Your task to perform on an android device: turn off javascript in the chrome app Image 0: 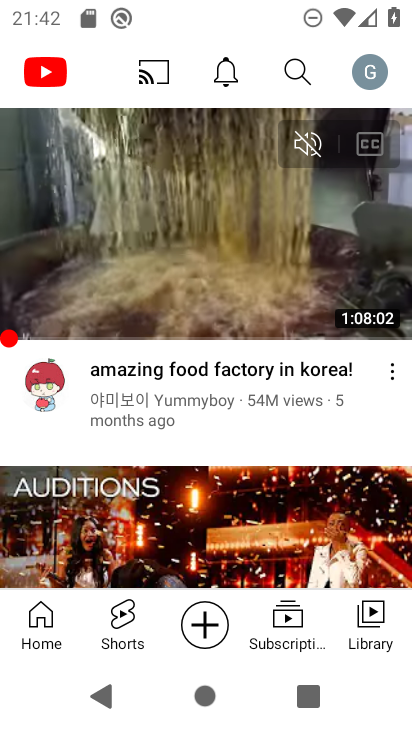
Step 0: press home button
Your task to perform on an android device: turn off javascript in the chrome app Image 1: 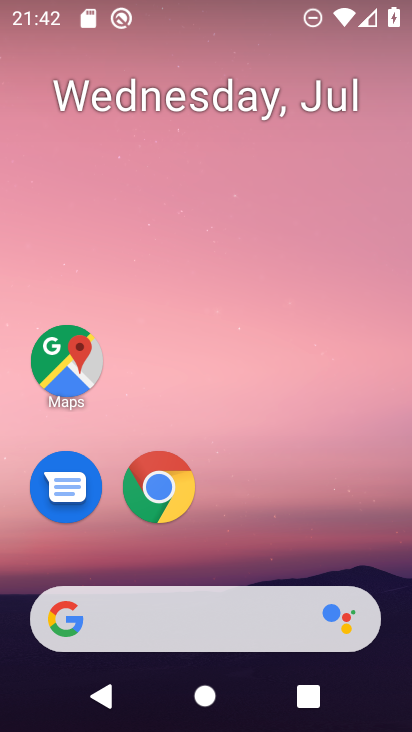
Step 1: drag from (325, 527) to (344, 82)
Your task to perform on an android device: turn off javascript in the chrome app Image 2: 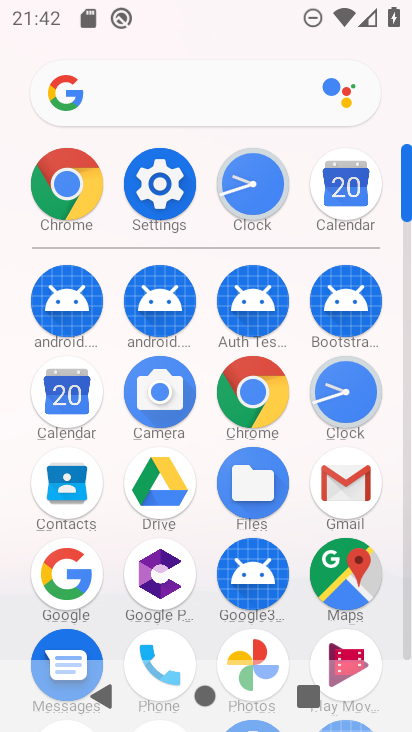
Step 2: click (262, 394)
Your task to perform on an android device: turn off javascript in the chrome app Image 3: 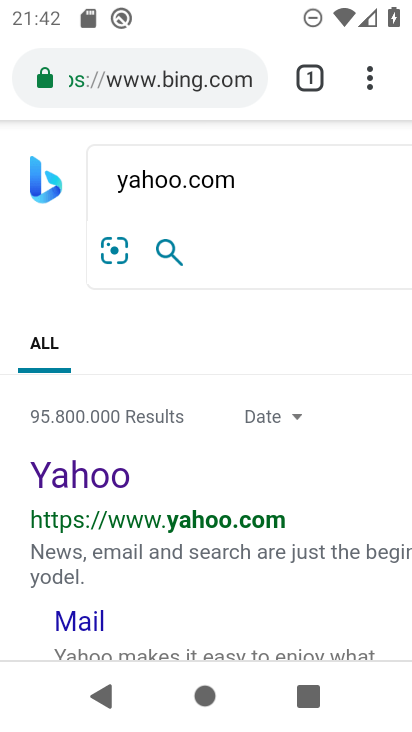
Step 3: click (369, 83)
Your task to perform on an android device: turn off javascript in the chrome app Image 4: 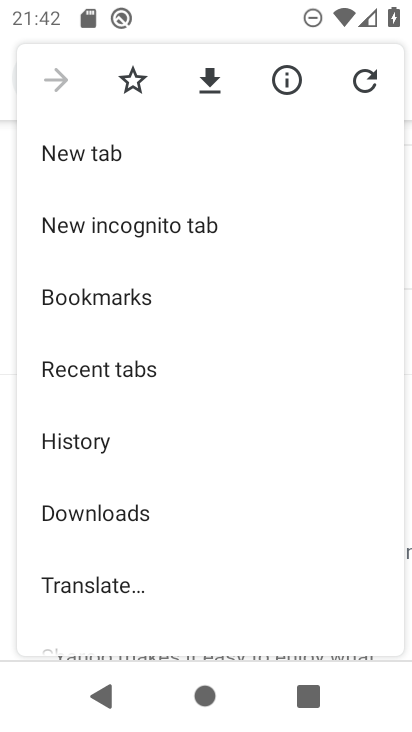
Step 4: drag from (284, 480) to (299, 364)
Your task to perform on an android device: turn off javascript in the chrome app Image 5: 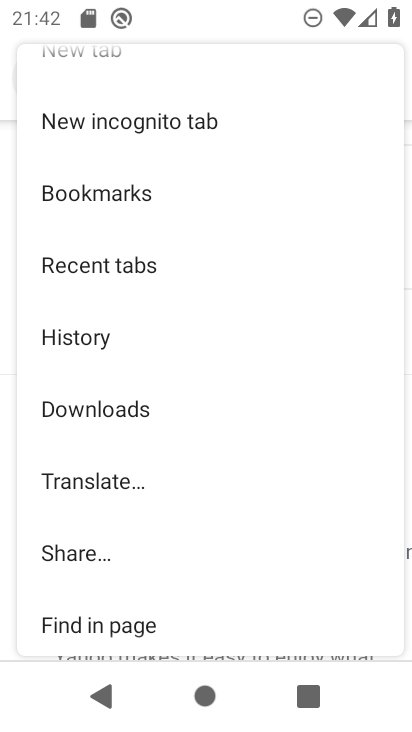
Step 5: drag from (270, 508) to (289, 347)
Your task to perform on an android device: turn off javascript in the chrome app Image 6: 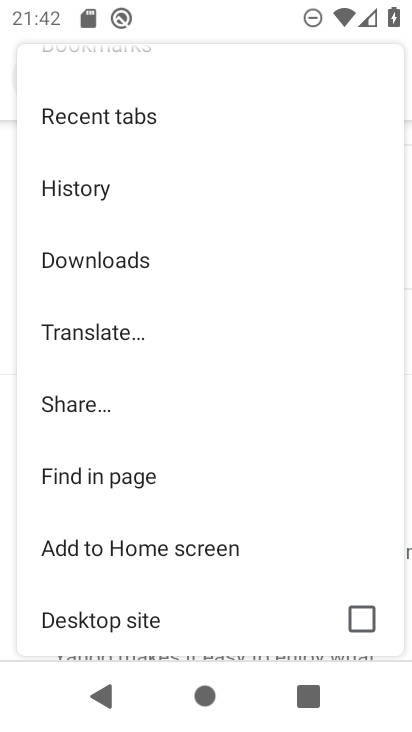
Step 6: drag from (292, 560) to (283, 372)
Your task to perform on an android device: turn off javascript in the chrome app Image 7: 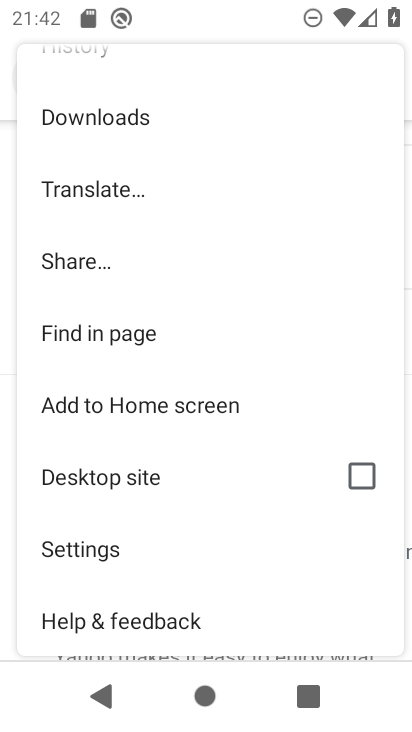
Step 7: click (176, 564)
Your task to perform on an android device: turn off javascript in the chrome app Image 8: 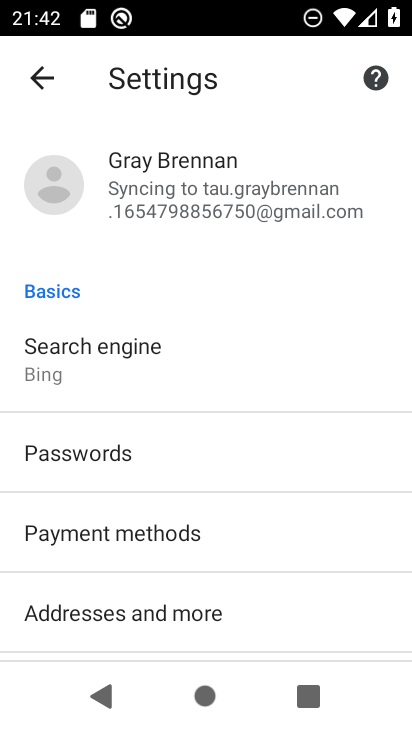
Step 8: drag from (291, 531) to (303, 390)
Your task to perform on an android device: turn off javascript in the chrome app Image 9: 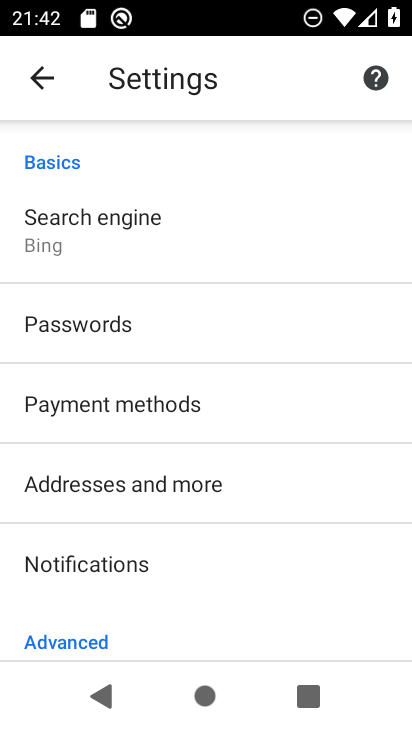
Step 9: drag from (303, 562) to (304, 433)
Your task to perform on an android device: turn off javascript in the chrome app Image 10: 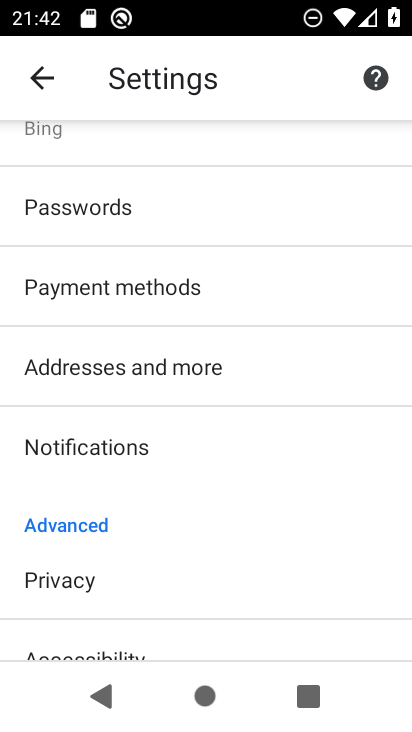
Step 10: drag from (299, 561) to (304, 423)
Your task to perform on an android device: turn off javascript in the chrome app Image 11: 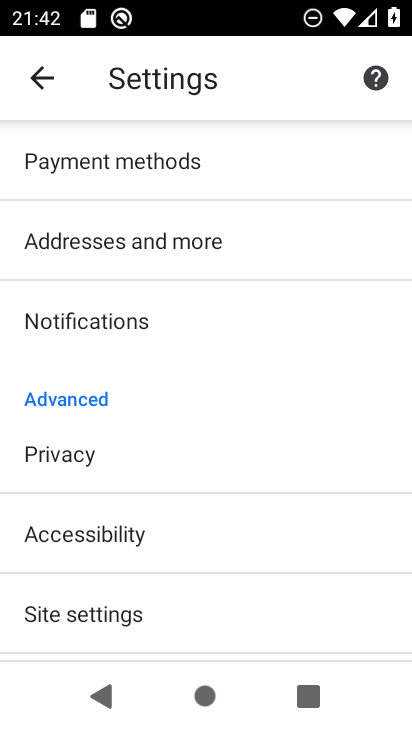
Step 11: drag from (299, 578) to (304, 393)
Your task to perform on an android device: turn off javascript in the chrome app Image 12: 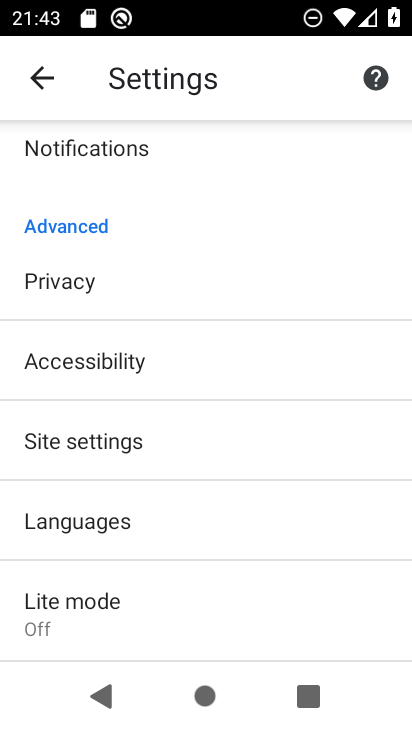
Step 12: click (244, 430)
Your task to perform on an android device: turn off javascript in the chrome app Image 13: 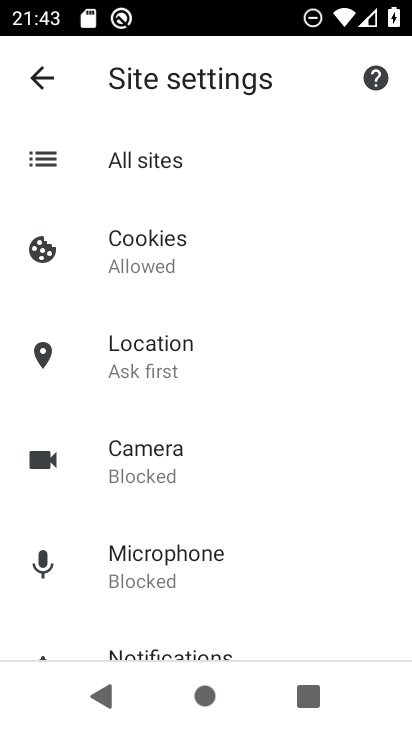
Step 13: drag from (286, 528) to (310, 368)
Your task to perform on an android device: turn off javascript in the chrome app Image 14: 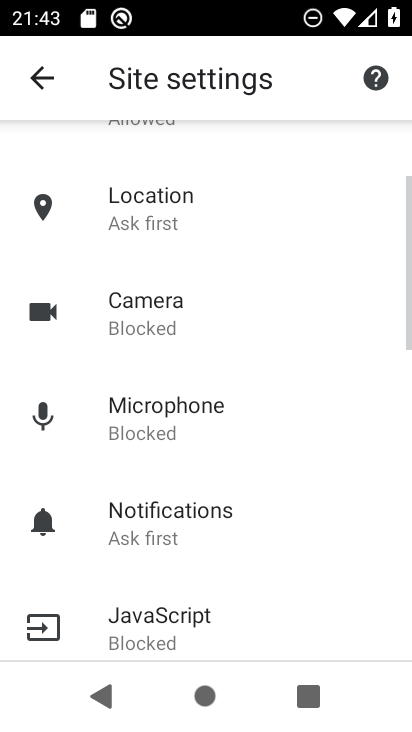
Step 14: drag from (310, 529) to (316, 368)
Your task to perform on an android device: turn off javascript in the chrome app Image 15: 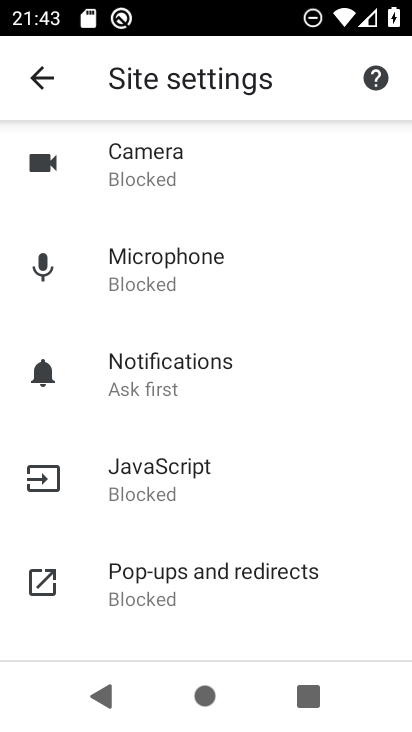
Step 15: drag from (312, 508) to (310, 372)
Your task to perform on an android device: turn off javascript in the chrome app Image 16: 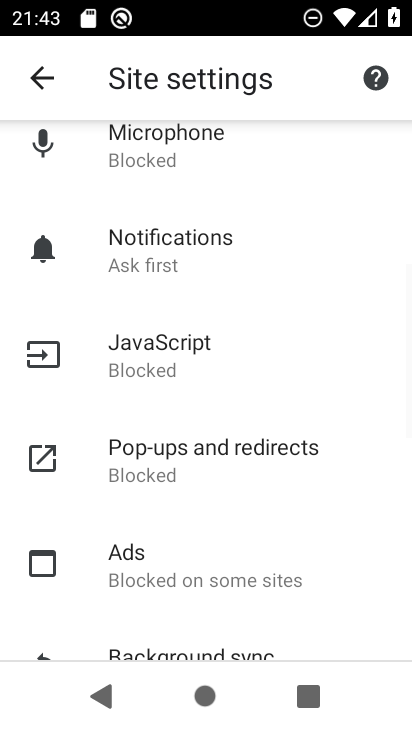
Step 16: click (243, 370)
Your task to perform on an android device: turn off javascript in the chrome app Image 17: 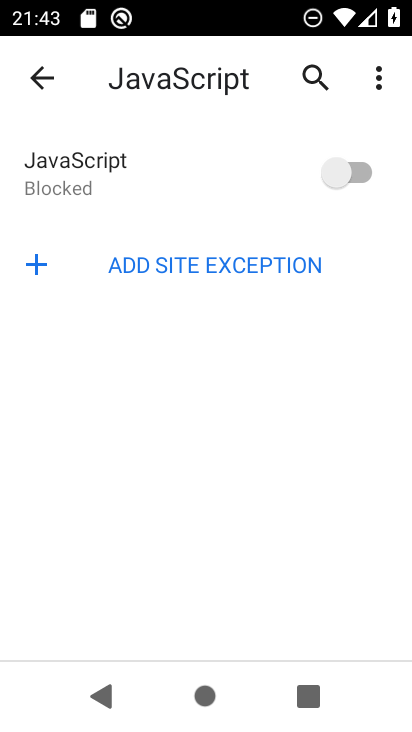
Step 17: task complete